Your task to perform on an android device: Search for Mexican restaurants on Maps Image 0: 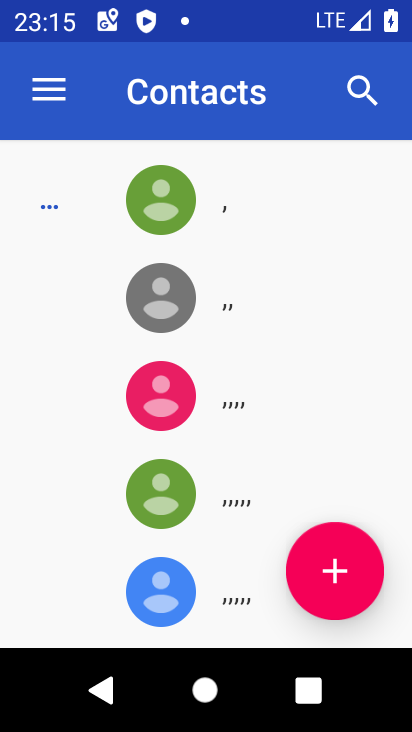
Step 0: drag from (203, 470) to (403, 204)
Your task to perform on an android device: Search for Mexican restaurants on Maps Image 1: 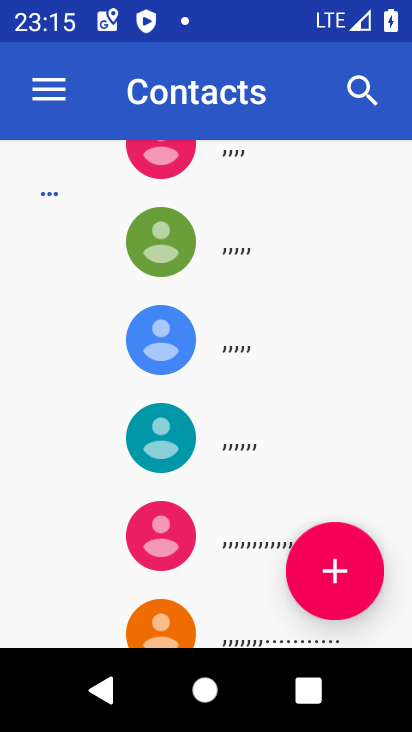
Step 1: press home button
Your task to perform on an android device: Search for Mexican restaurants on Maps Image 2: 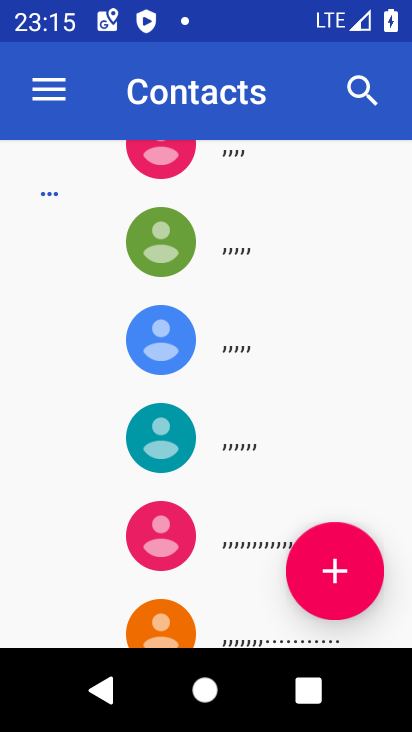
Step 2: drag from (403, 204) to (365, 366)
Your task to perform on an android device: Search for Mexican restaurants on Maps Image 3: 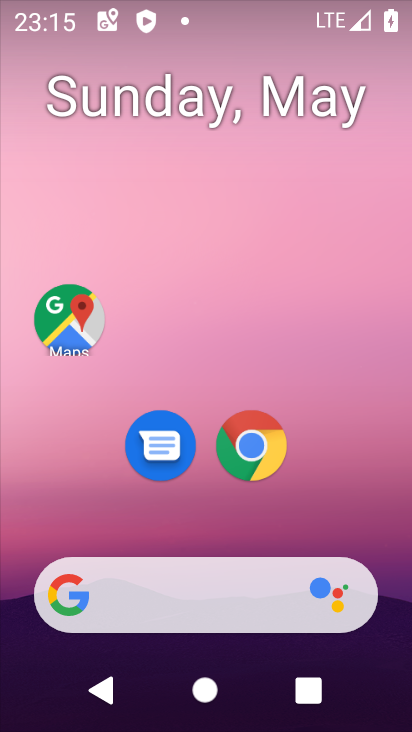
Step 3: click (47, 343)
Your task to perform on an android device: Search for Mexican restaurants on Maps Image 4: 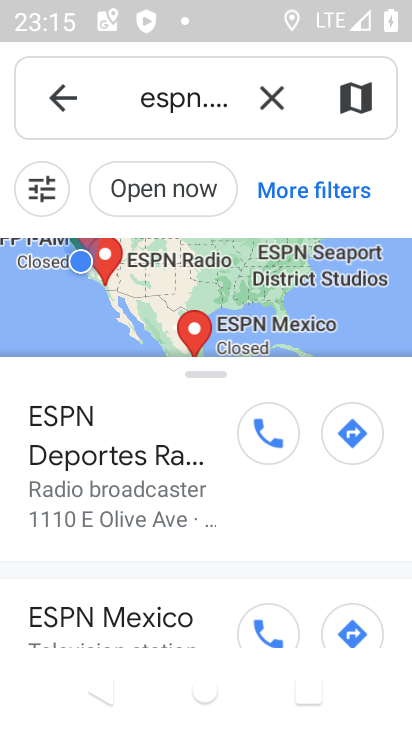
Step 4: click (271, 103)
Your task to perform on an android device: Search for Mexican restaurants on Maps Image 5: 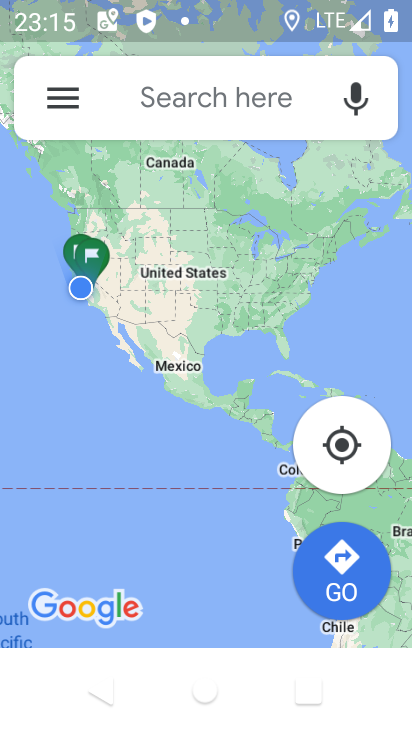
Step 5: click (271, 103)
Your task to perform on an android device: Search for Mexican restaurants on Maps Image 6: 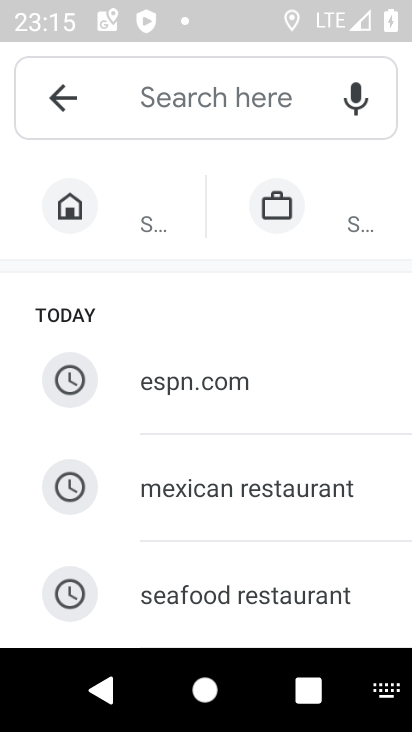
Step 6: type "Mexican restaurants"
Your task to perform on an android device: Search for Mexican restaurants on Maps Image 7: 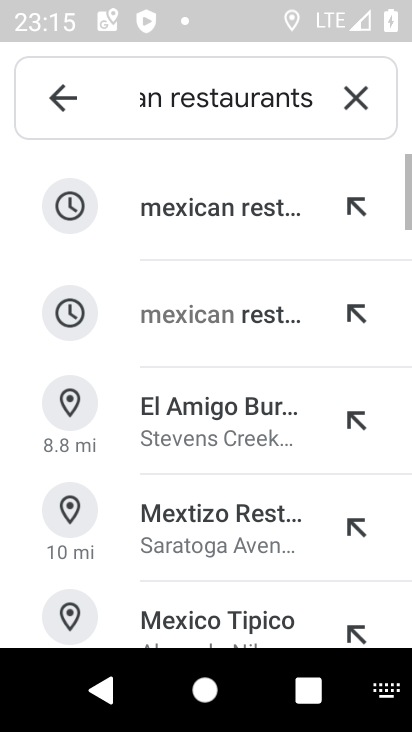
Step 7: click (216, 222)
Your task to perform on an android device: Search for Mexican restaurants on Maps Image 8: 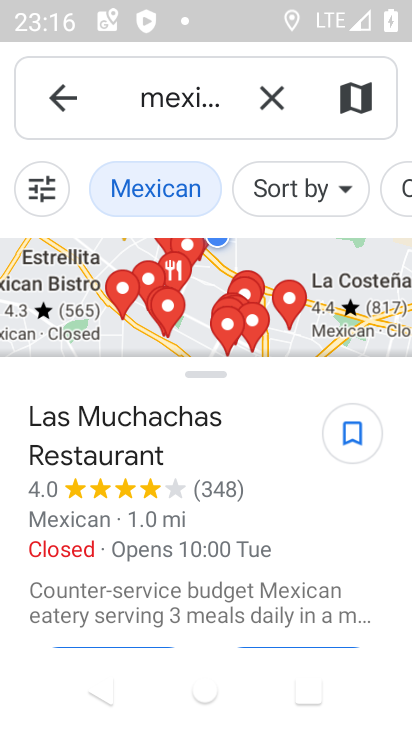
Step 8: task complete